Your task to perform on an android device: Go to wifi settings Image 0: 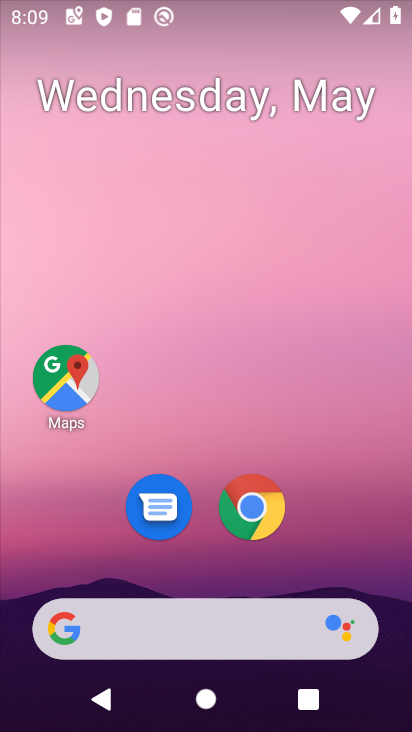
Step 0: drag from (323, 542) to (279, 208)
Your task to perform on an android device: Go to wifi settings Image 1: 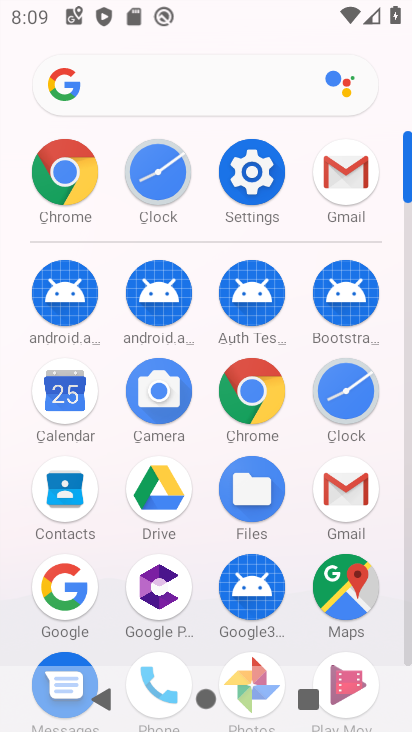
Step 1: click (258, 167)
Your task to perform on an android device: Go to wifi settings Image 2: 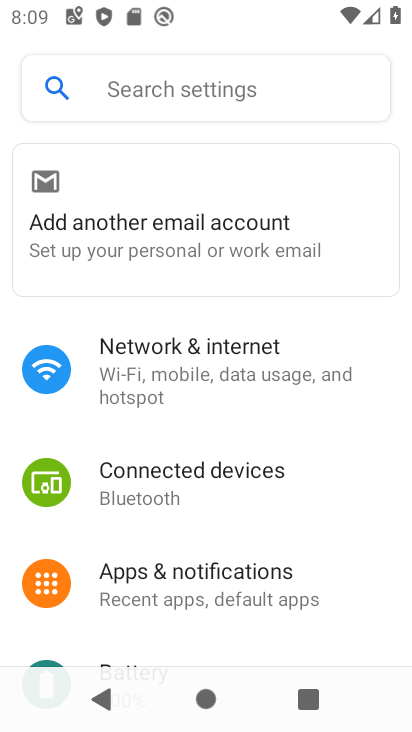
Step 2: click (136, 230)
Your task to perform on an android device: Go to wifi settings Image 3: 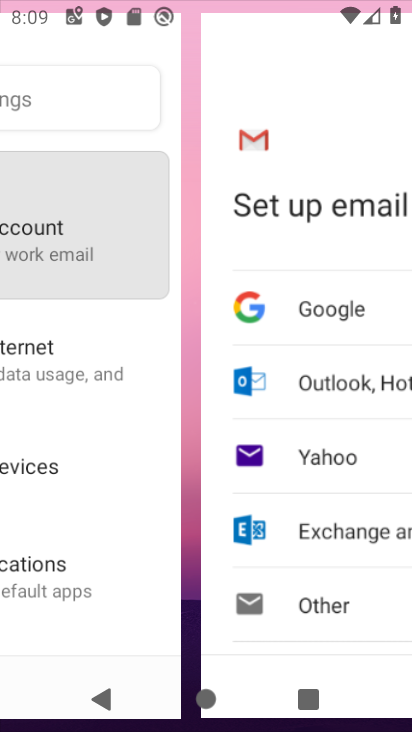
Step 3: click (159, 370)
Your task to perform on an android device: Go to wifi settings Image 4: 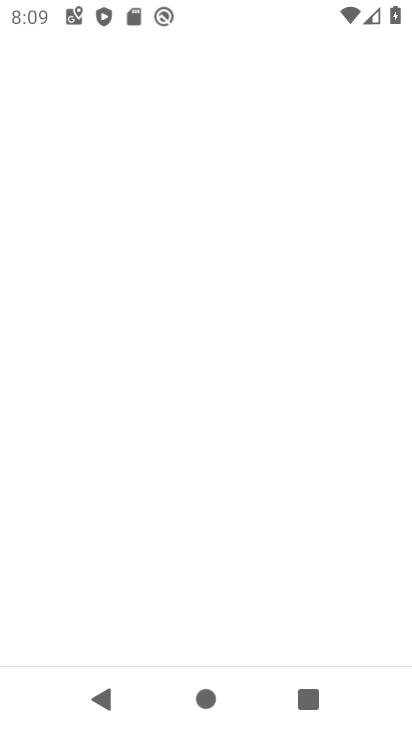
Step 4: press back button
Your task to perform on an android device: Go to wifi settings Image 5: 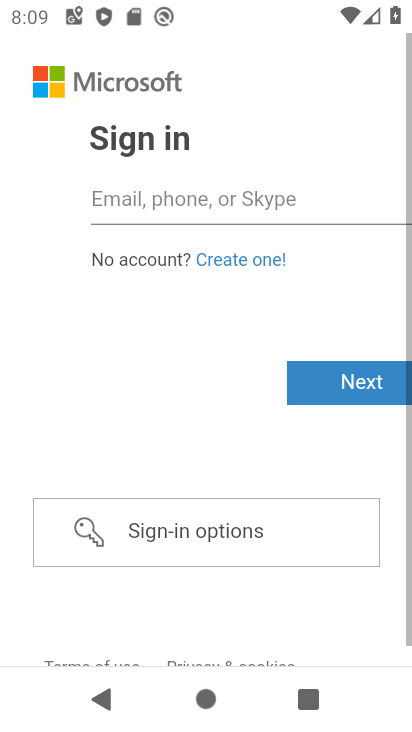
Step 5: press back button
Your task to perform on an android device: Go to wifi settings Image 6: 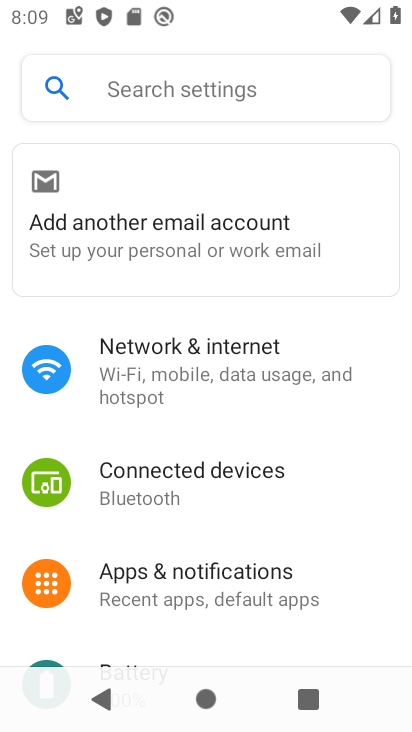
Step 6: click (179, 190)
Your task to perform on an android device: Go to wifi settings Image 7: 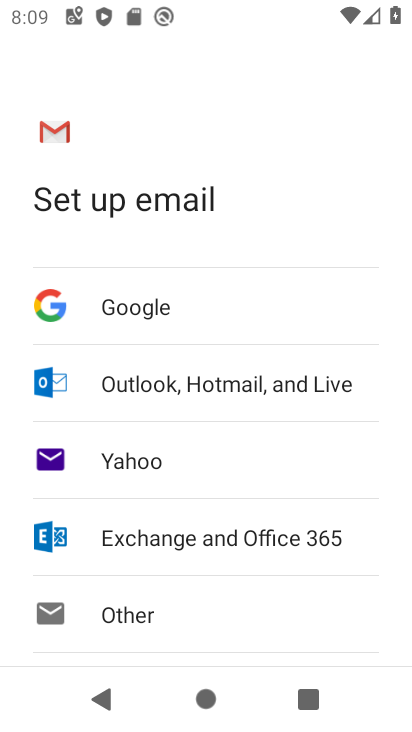
Step 7: press back button
Your task to perform on an android device: Go to wifi settings Image 8: 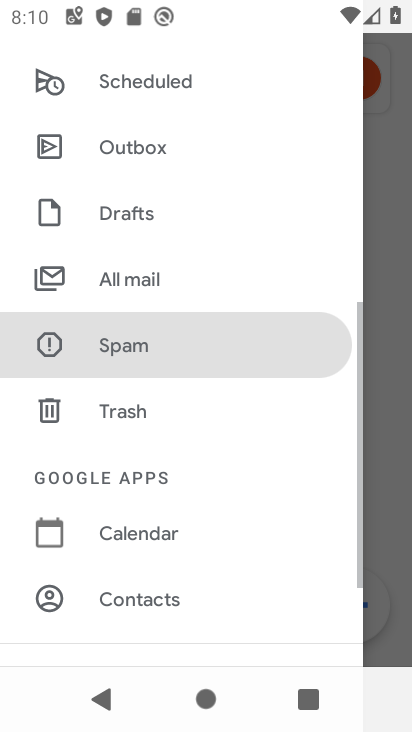
Step 8: drag from (152, 155) to (189, 566)
Your task to perform on an android device: Go to wifi settings Image 9: 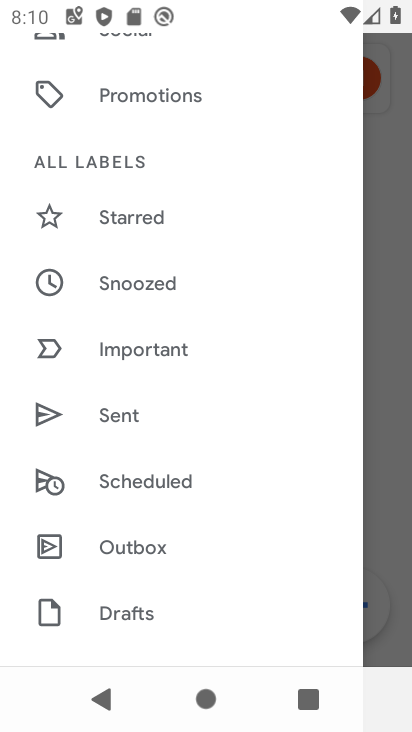
Step 9: drag from (133, 98) to (161, 503)
Your task to perform on an android device: Go to wifi settings Image 10: 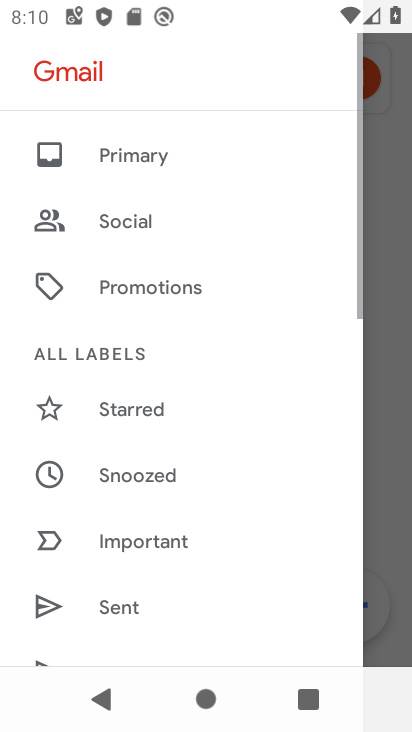
Step 10: press home button
Your task to perform on an android device: Go to wifi settings Image 11: 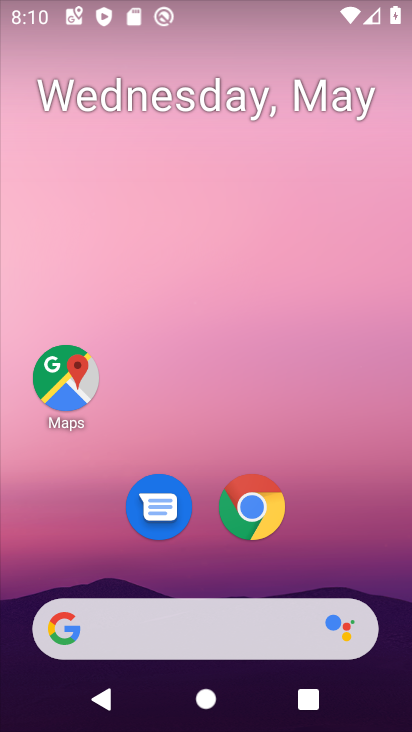
Step 11: drag from (175, 450) to (175, 180)
Your task to perform on an android device: Go to wifi settings Image 12: 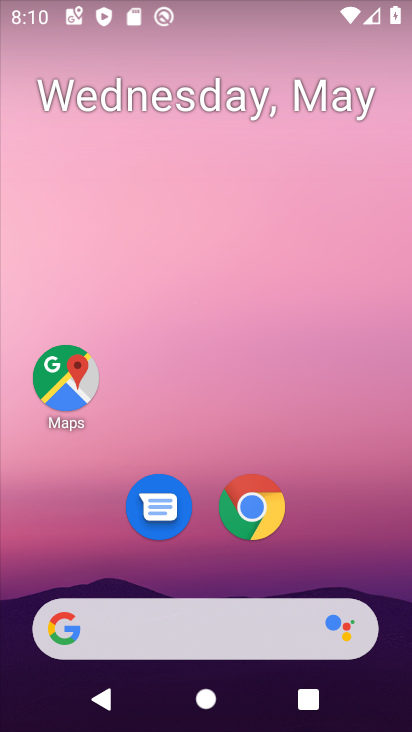
Step 12: drag from (315, 525) to (281, 227)
Your task to perform on an android device: Go to wifi settings Image 13: 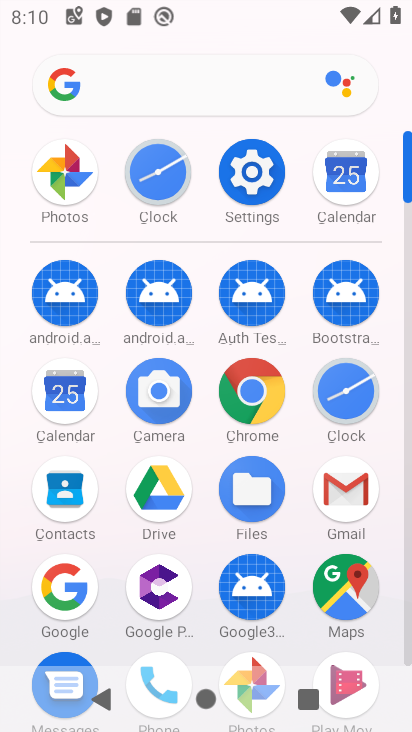
Step 13: click (240, 147)
Your task to perform on an android device: Go to wifi settings Image 14: 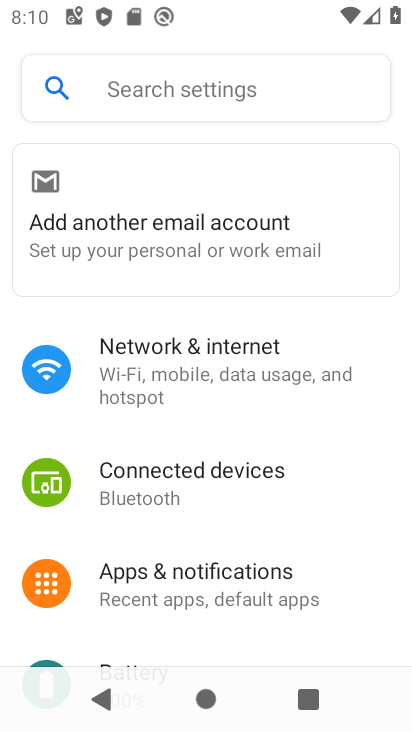
Step 14: click (159, 356)
Your task to perform on an android device: Go to wifi settings Image 15: 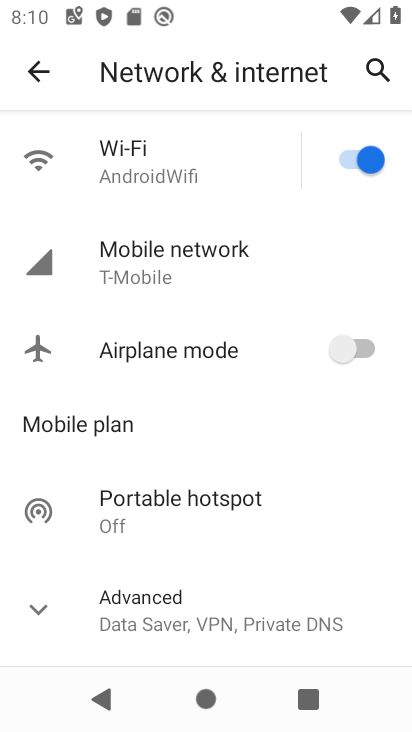
Step 15: click (174, 174)
Your task to perform on an android device: Go to wifi settings Image 16: 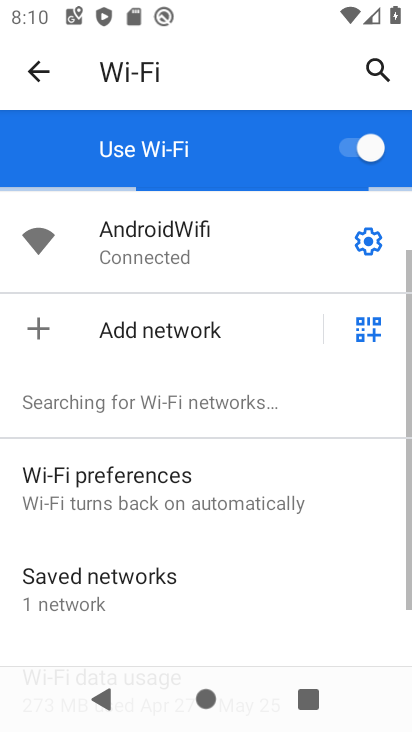
Step 16: task complete